Your task to perform on an android device: Search for Mexican restaurants on Maps Image 0: 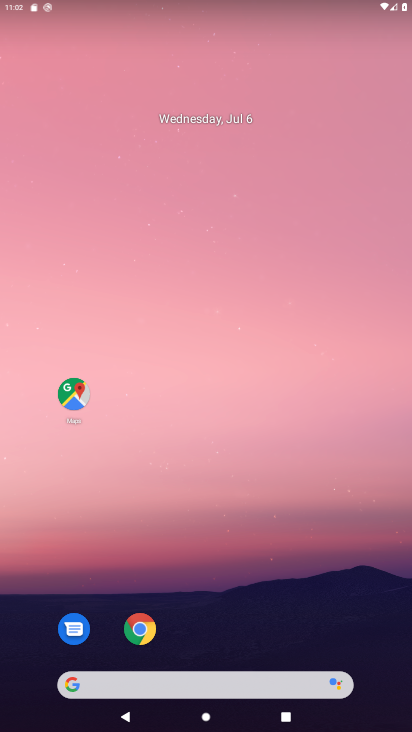
Step 0: drag from (215, 647) to (228, 32)
Your task to perform on an android device: Search for Mexican restaurants on Maps Image 1: 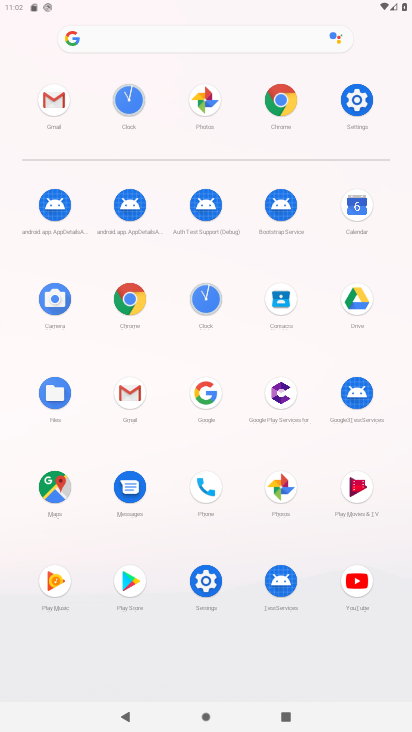
Step 1: click (54, 485)
Your task to perform on an android device: Search for Mexican restaurants on Maps Image 2: 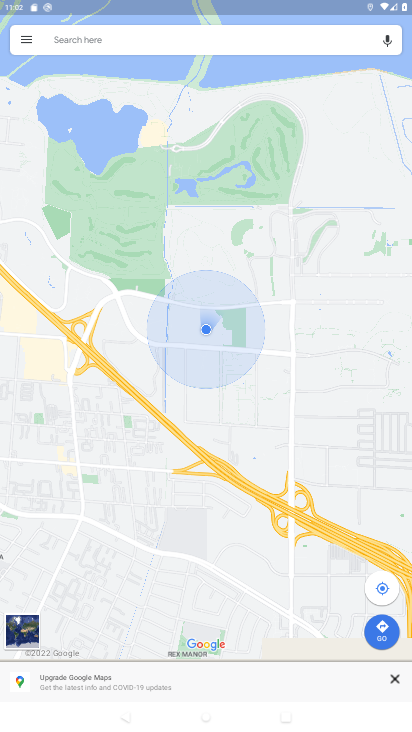
Step 2: click (124, 34)
Your task to perform on an android device: Search for Mexican restaurants on Maps Image 3: 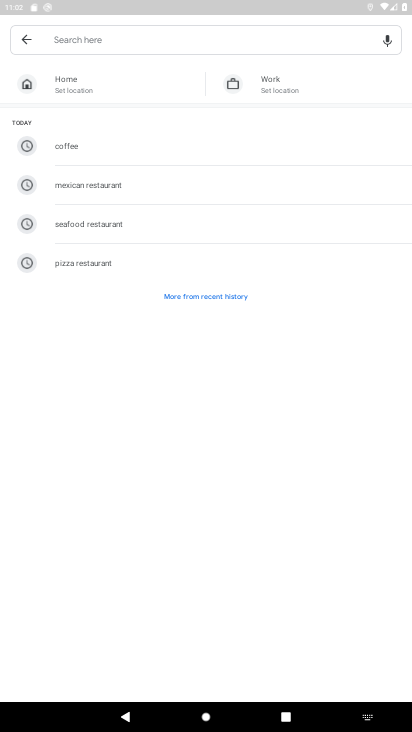
Step 3: click (109, 190)
Your task to perform on an android device: Search for Mexican restaurants on Maps Image 4: 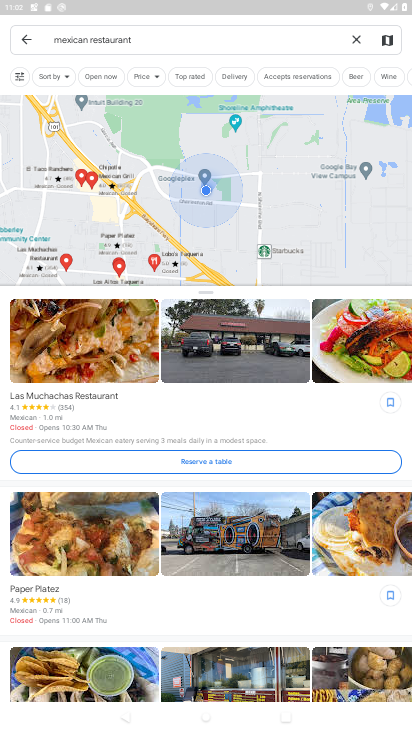
Step 4: task complete